Your task to perform on an android device: open app "Expedia: Hotels, Flights & Car" (install if not already installed) Image 0: 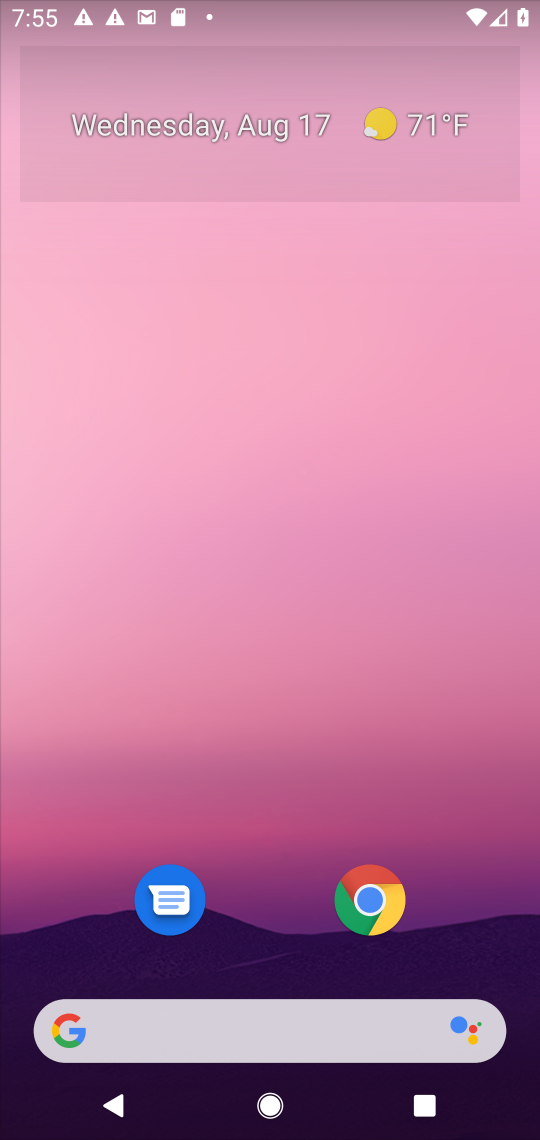
Step 0: drag from (281, 926) to (526, 249)
Your task to perform on an android device: open app "Expedia: Hotels, Flights & Car" (install if not already installed) Image 1: 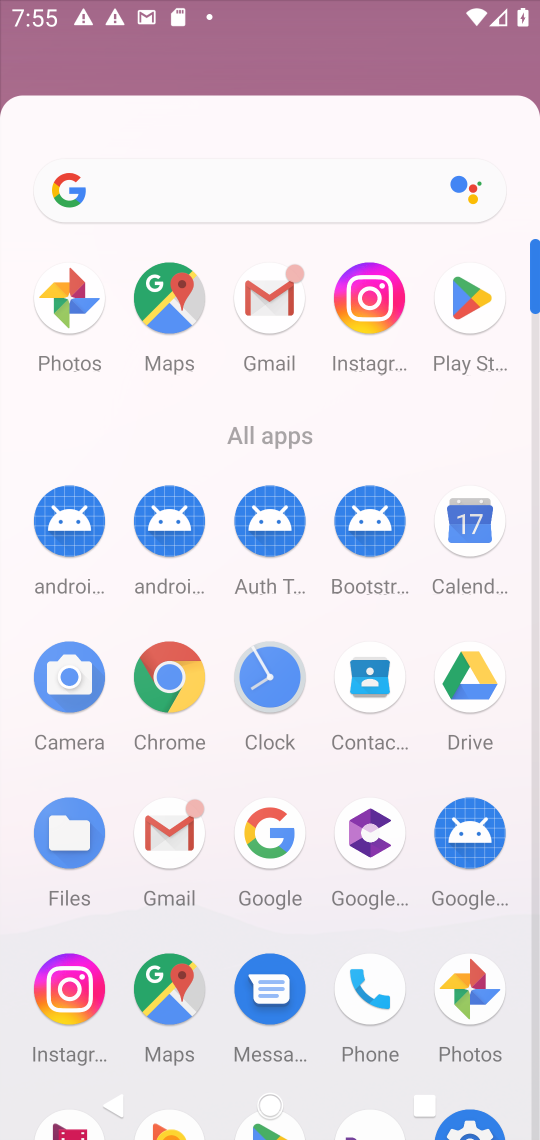
Step 1: click (480, 245)
Your task to perform on an android device: open app "Expedia: Hotels, Flights & Car" (install if not already installed) Image 2: 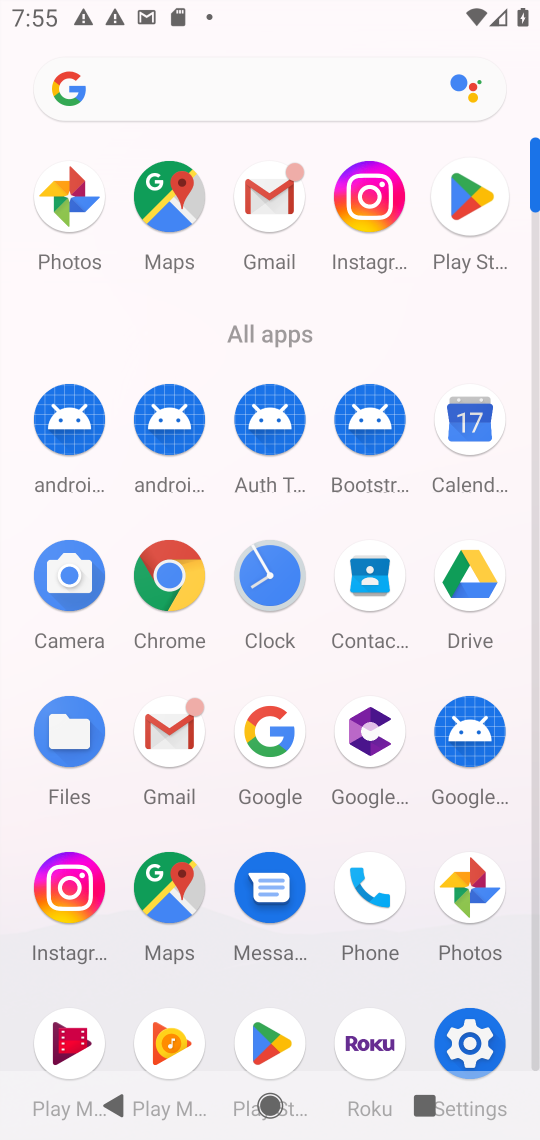
Step 2: click (464, 244)
Your task to perform on an android device: open app "Expedia: Hotels, Flights & Car" (install if not already installed) Image 3: 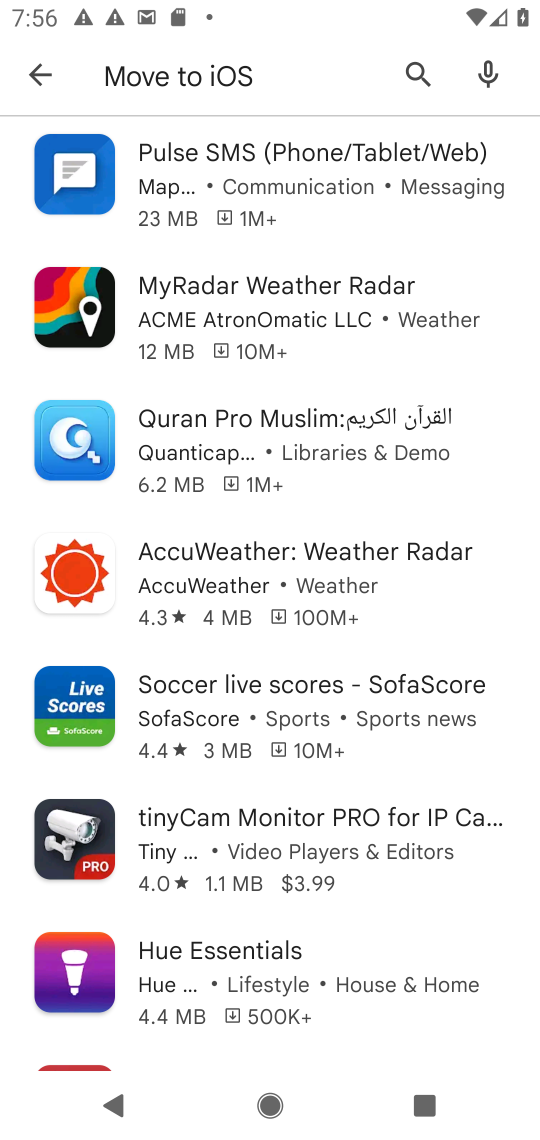
Step 3: click (56, 73)
Your task to perform on an android device: open app "Expedia: Hotels, Flights & Car" (install if not already installed) Image 4: 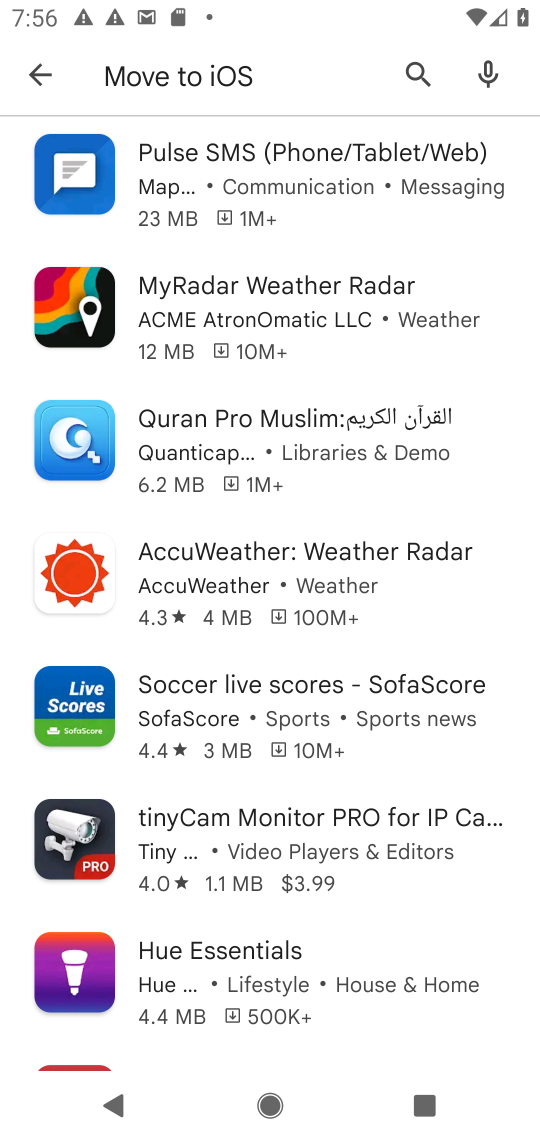
Step 4: click (45, 86)
Your task to perform on an android device: open app "Expedia: Hotels, Flights & Car" (install if not already installed) Image 5: 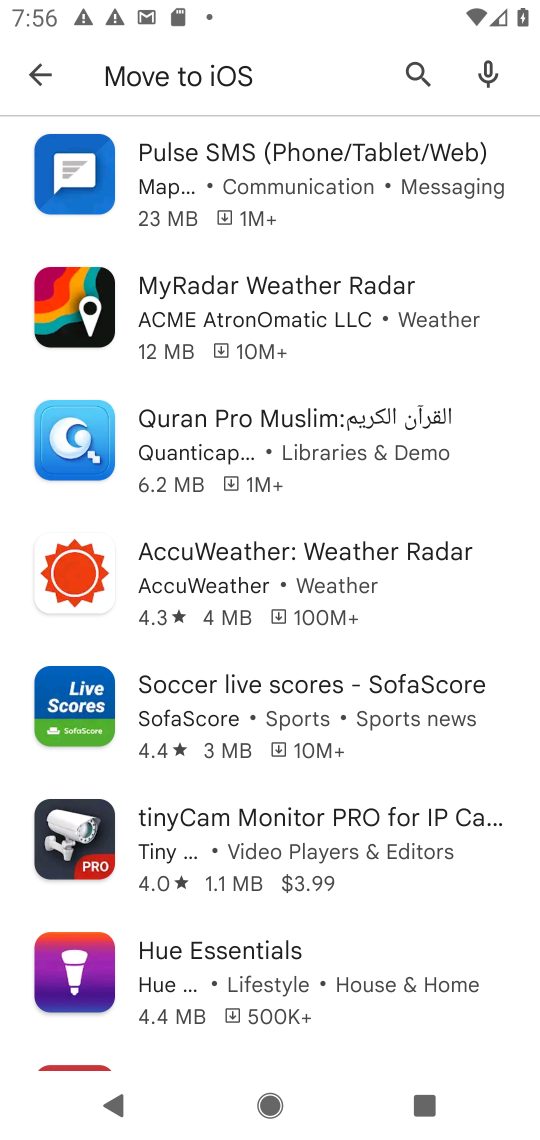
Step 5: click (33, 66)
Your task to perform on an android device: open app "Expedia: Hotels, Flights & Car" (install if not already installed) Image 6: 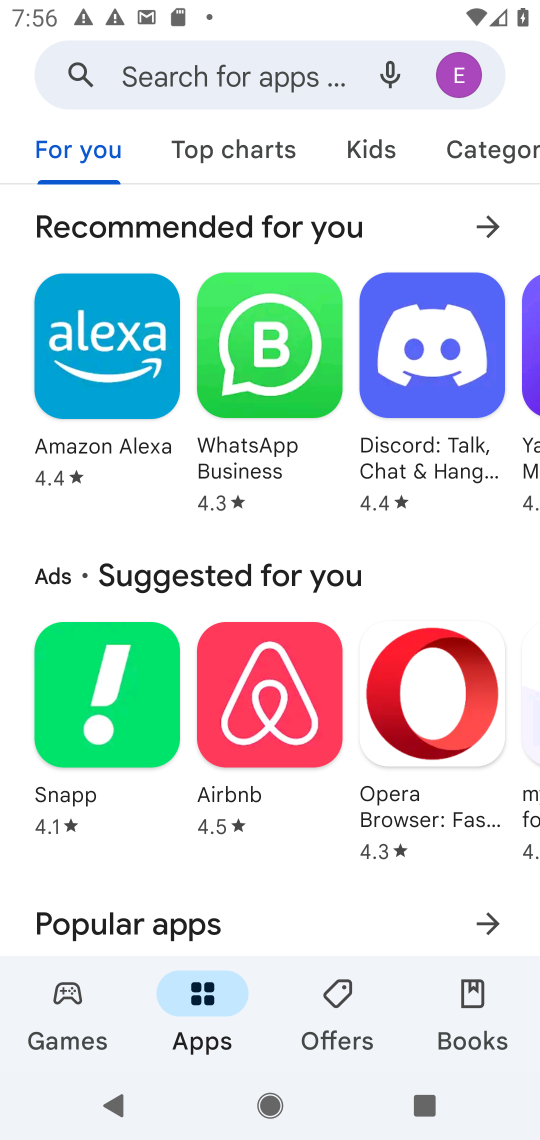
Step 6: click (304, 74)
Your task to perform on an android device: open app "Expedia: Hotels, Flights & Car" (install if not already installed) Image 7: 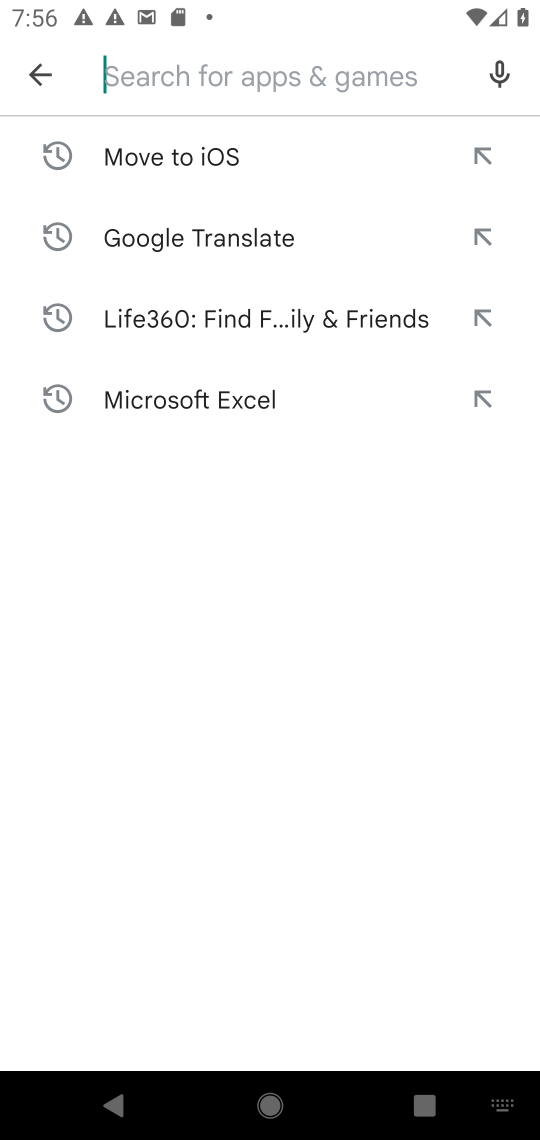
Step 7: type "Expedia: Hotels, Flights & Car"
Your task to perform on an android device: open app "Expedia: Hotels, Flights & Car" (install if not already installed) Image 8: 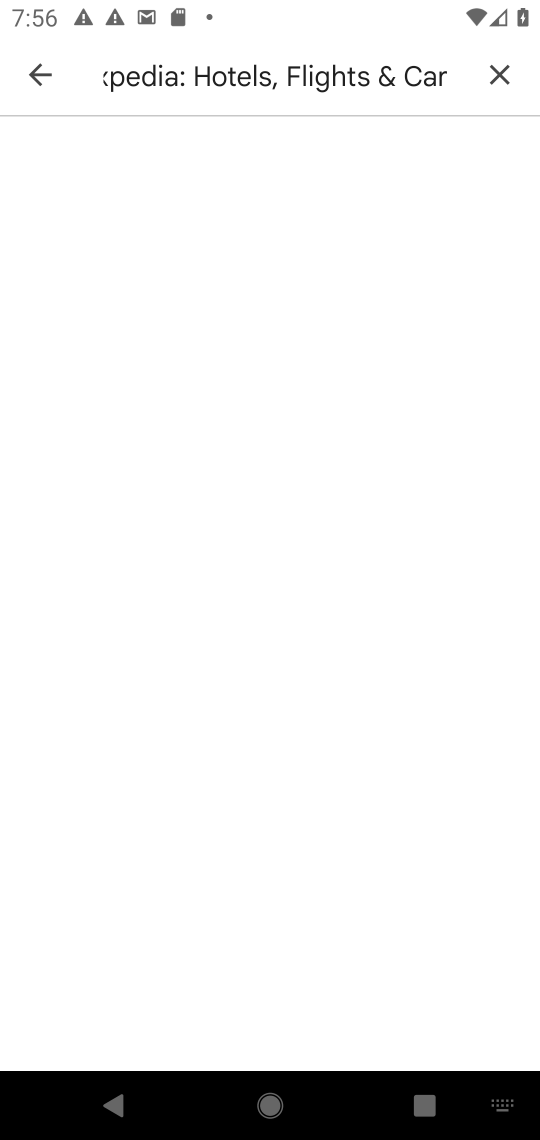
Step 8: press enter
Your task to perform on an android device: open app "Expedia: Hotels, Flights & Car" (install if not already installed) Image 9: 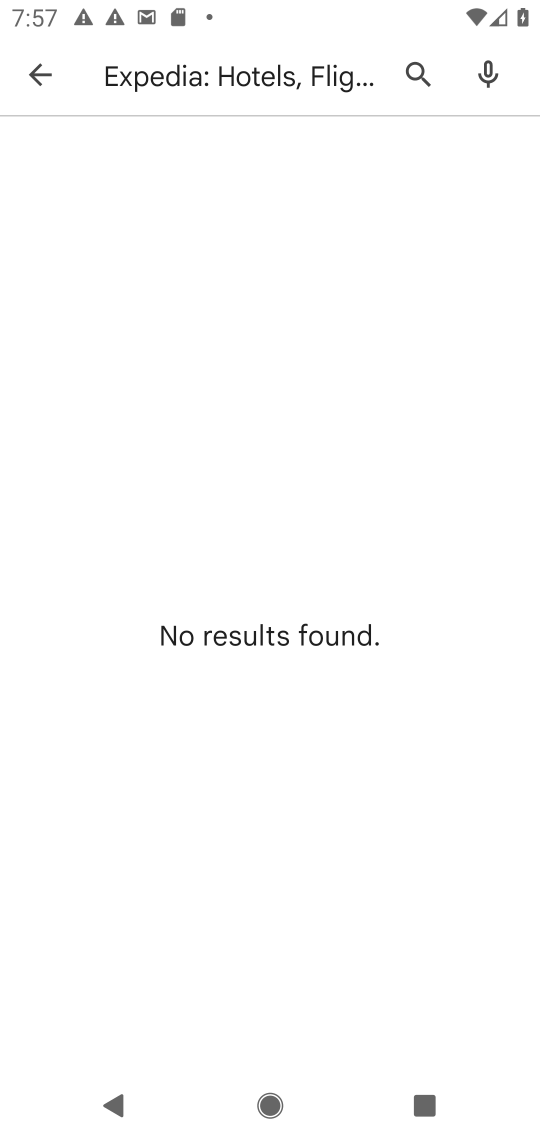
Step 9: task complete